Your task to perform on an android device: View the shopping cart on newegg. Add "razer nari" to the cart on newegg, then select checkout. Image 0: 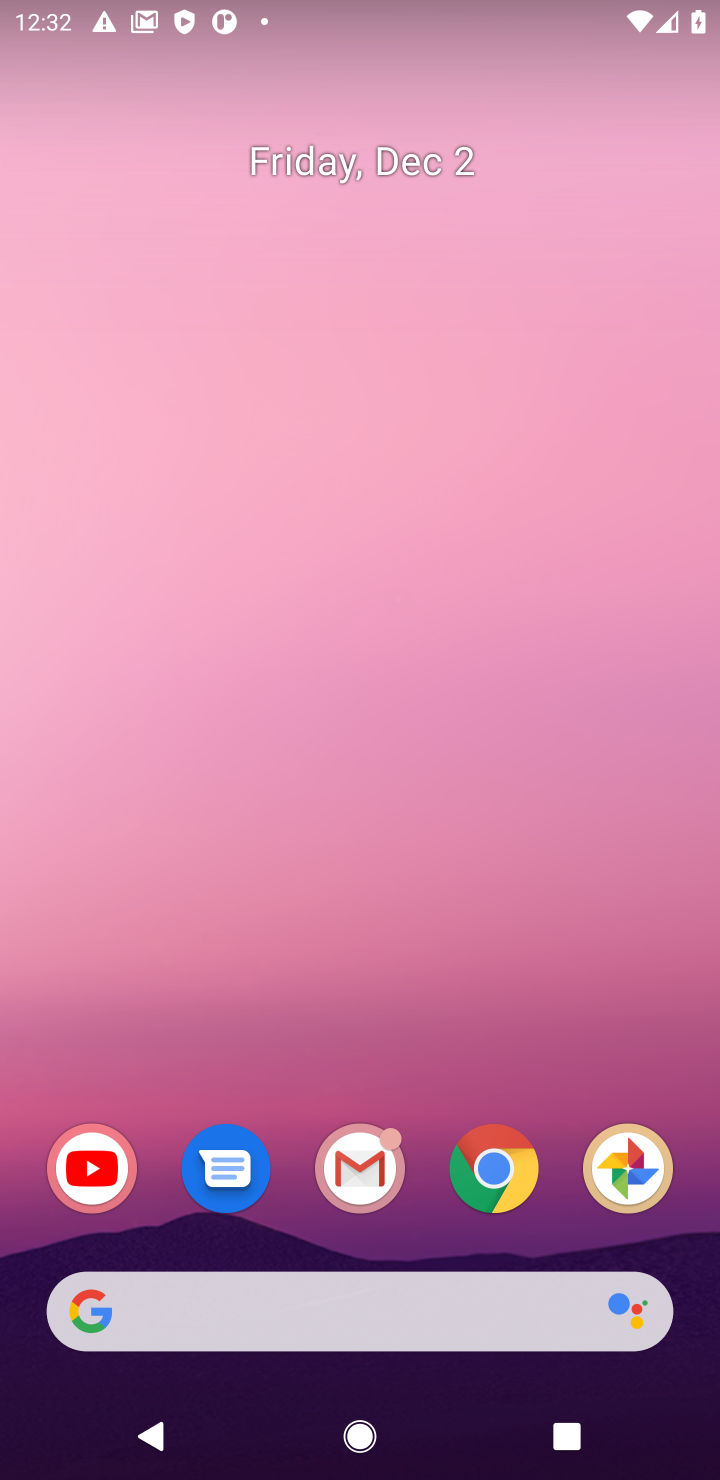
Step 0: click (471, 1179)
Your task to perform on an android device: View the shopping cart on newegg. Add "razer nari" to the cart on newegg, then select checkout. Image 1: 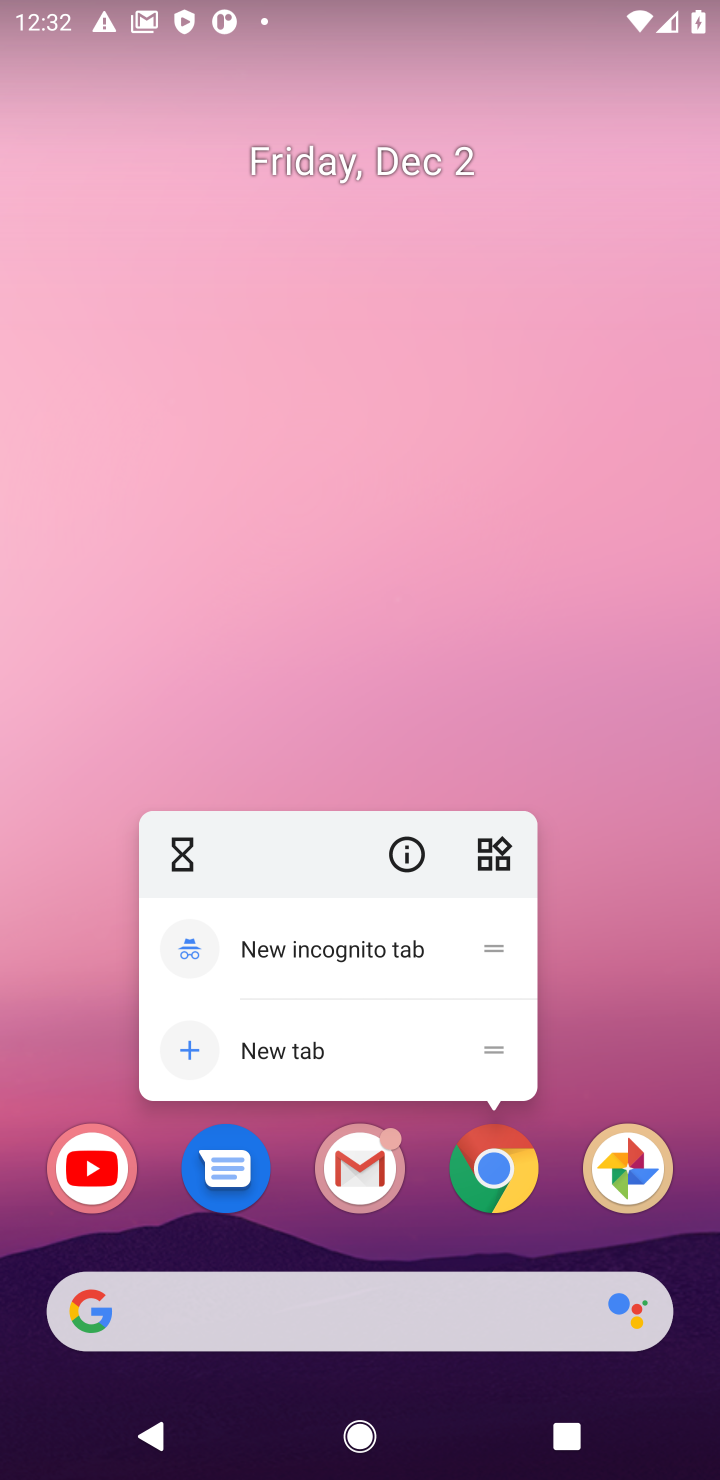
Step 1: click (498, 1196)
Your task to perform on an android device: View the shopping cart on newegg. Add "razer nari" to the cart on newegg, then select checkout. Image 2: 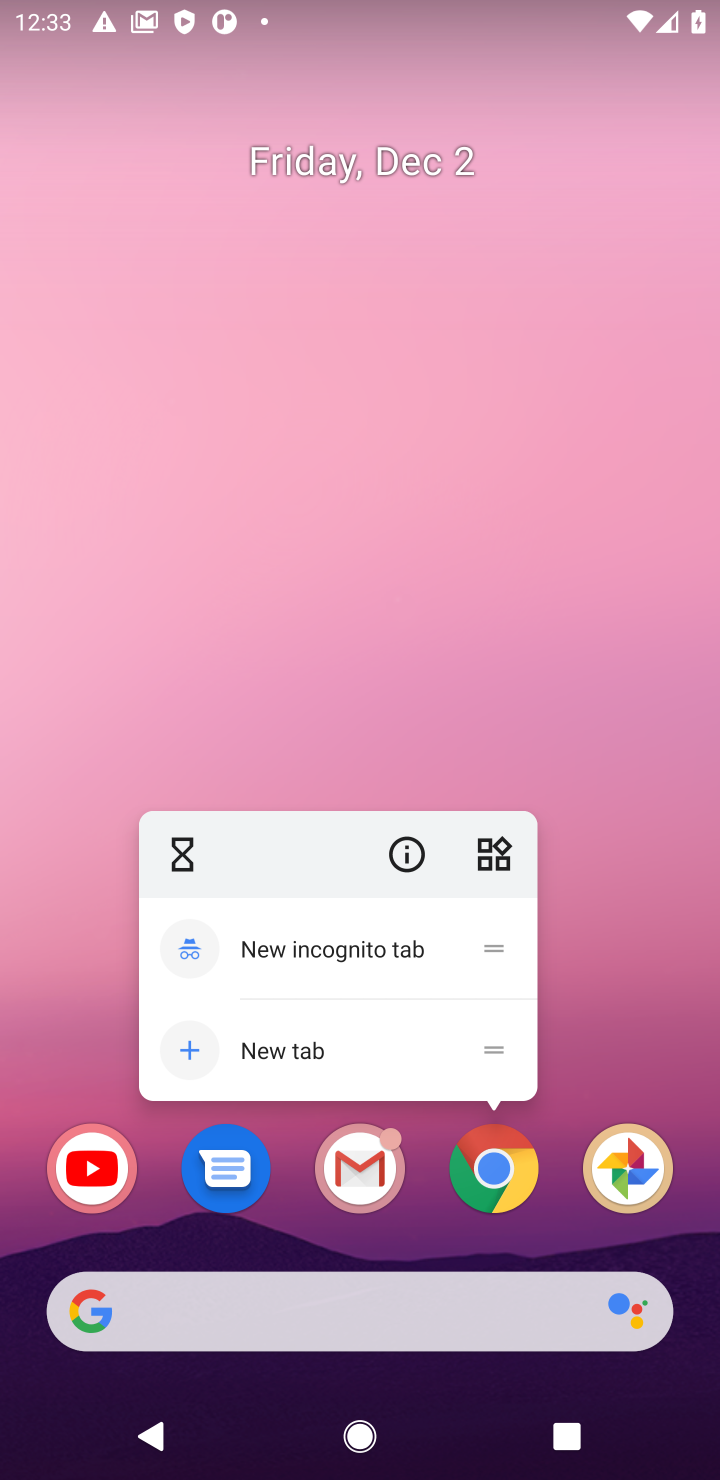
Step 2: click (487, 1166)
Your task to perform on an android device: View the shopping cart on newegg. Add "razer nari" to the cart on newegg, then select checkout. Image 3: 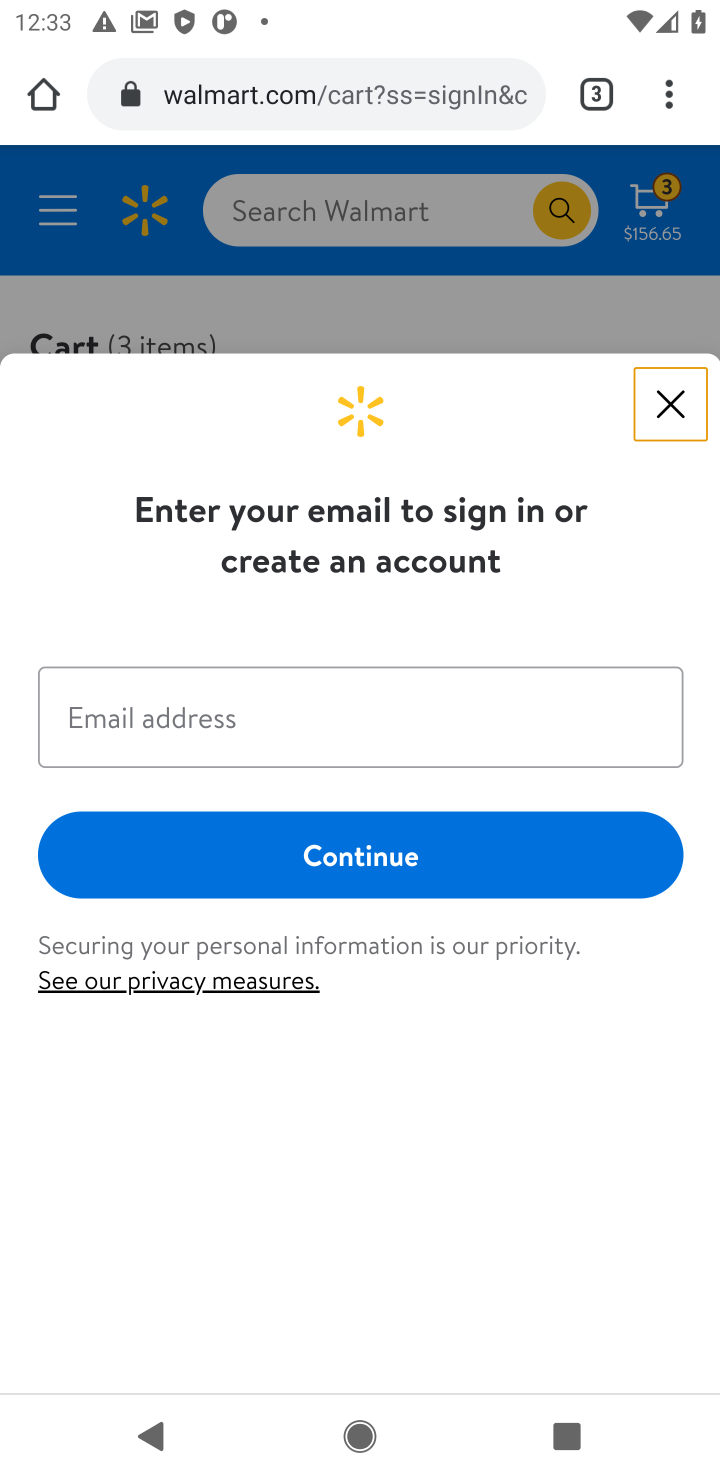
Step 3: click (275, 94)
Your task to perform on an android device: View the shopping cart on newegg. Add "razer nari" to the cart on newegg, then select checkout. Image 4: 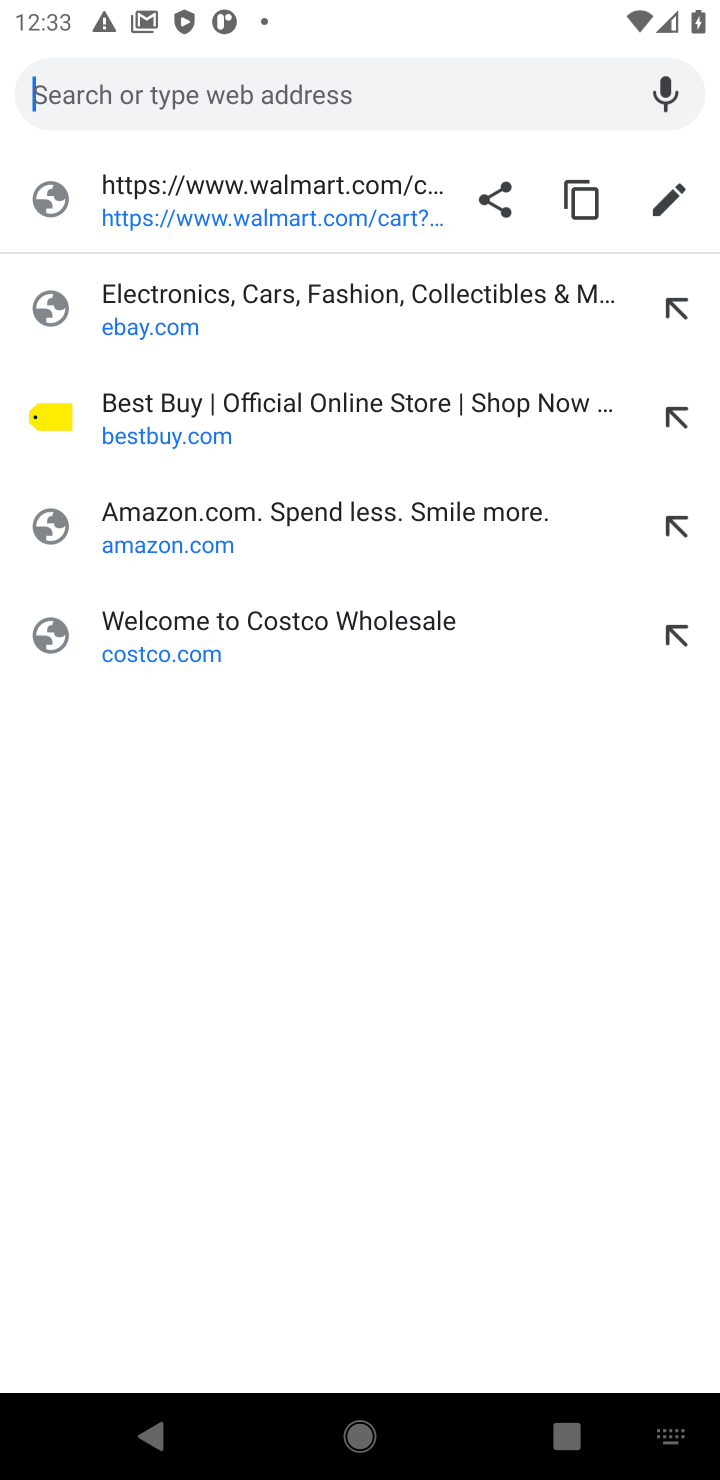
Step 4: type "newegg.com"
Your task to perform on an android device: View the shopping cart on newegg. Add "razer nari" to the cart on newegg, then select checkout. Image 5: 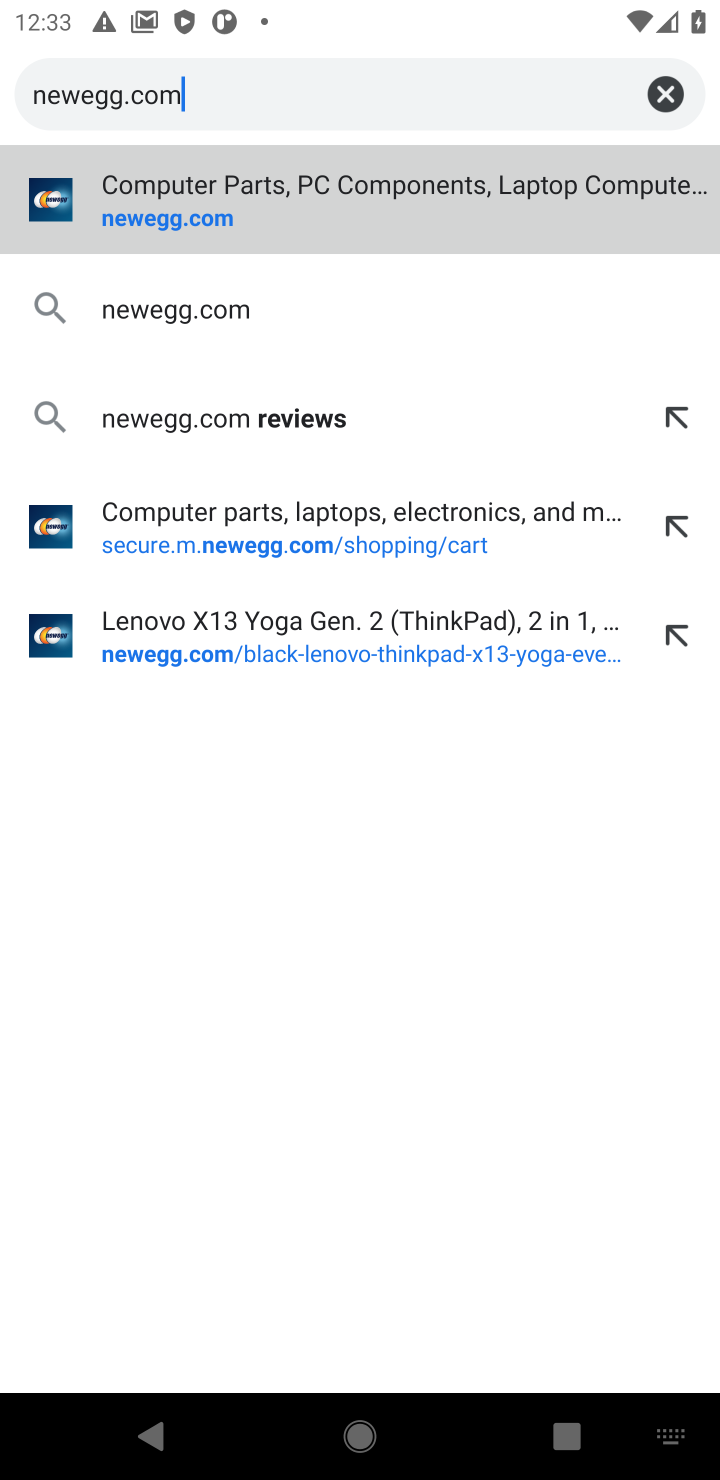
Step 5: click (143, 212)
Your task to perform on an android device: View the shopping cart on newegg. Add "razer nari" to the cart on newegg, then select checkout. Image 6: 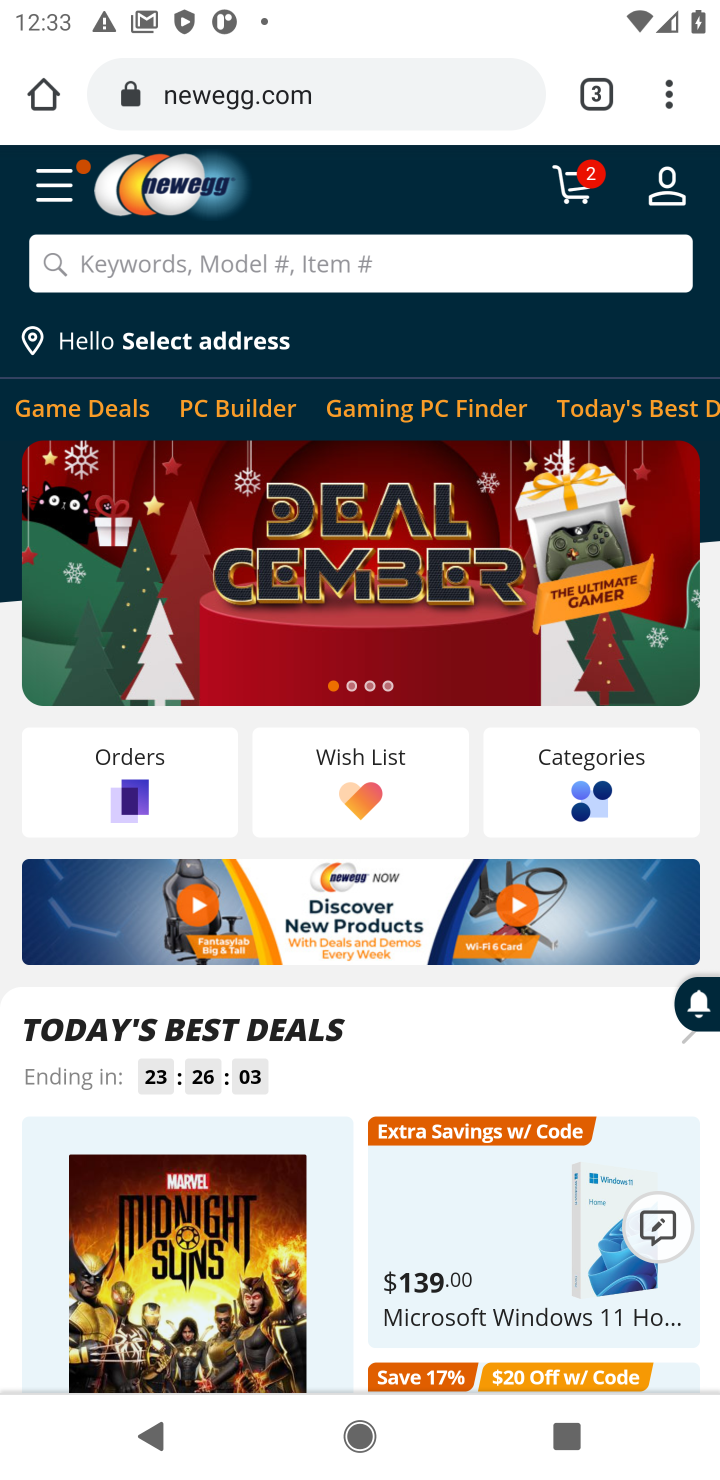
Step 6: click (573, 162)
Your task to perform on an android device: View the shopping cart on newegg. Add "razer nari" to the cart on newegg, then select checkout. Image 7: 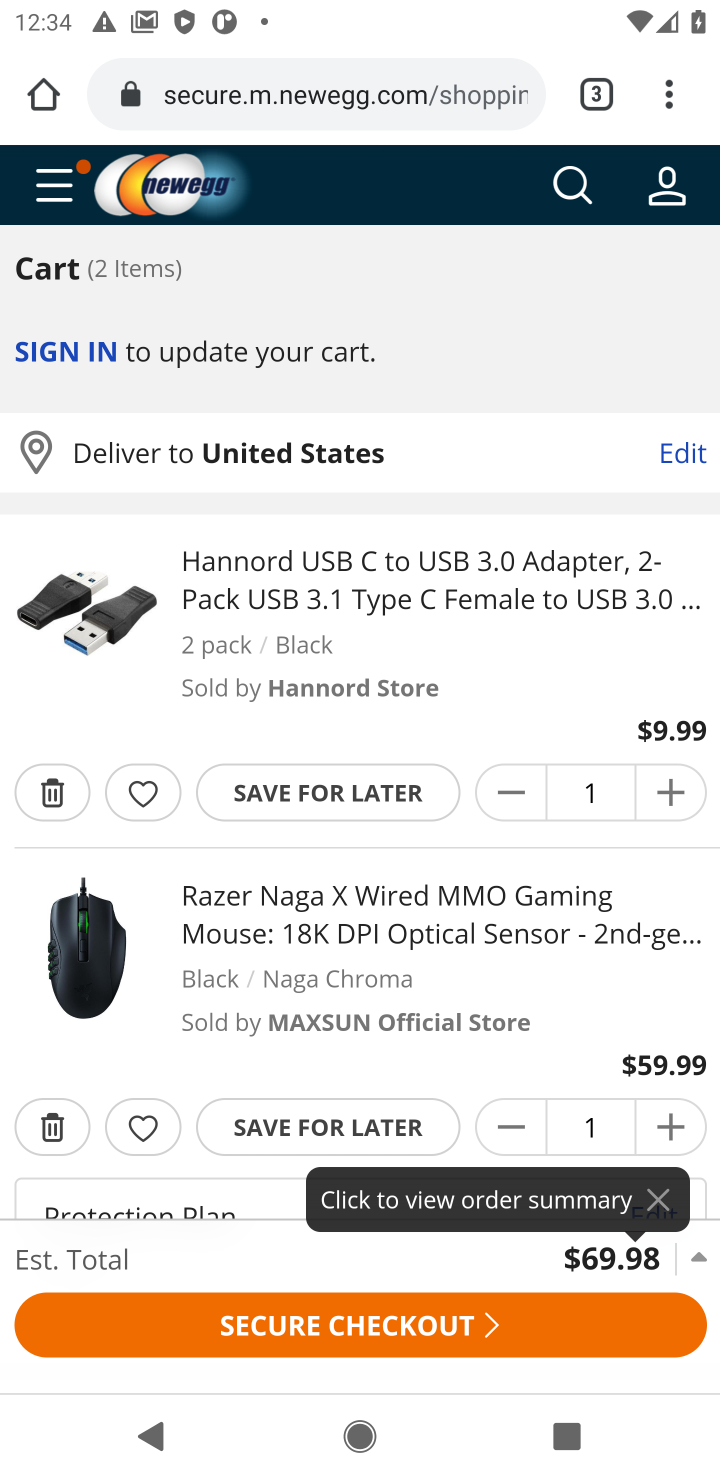
Step 7: click (566, 179)
Your task to perform on an android device: View the shopping cart on newegg. Add "razer nari" to the cart on newegg, then select checkout. Image 8: 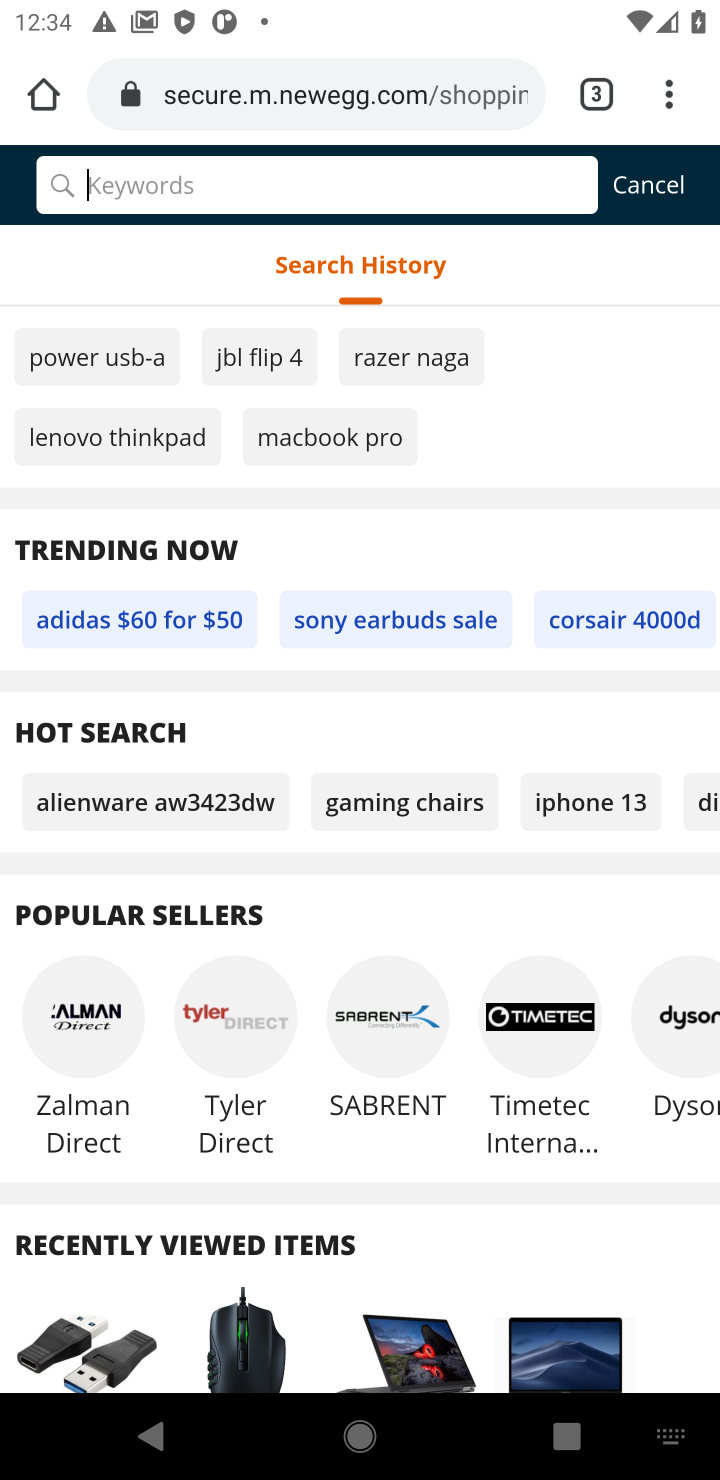
Step 8: type "razer nari"
Your task to perform on an android device: View the shopping cart on newegg. Add "razer nari" to the cart on newegg, then select checkout. Image 9: 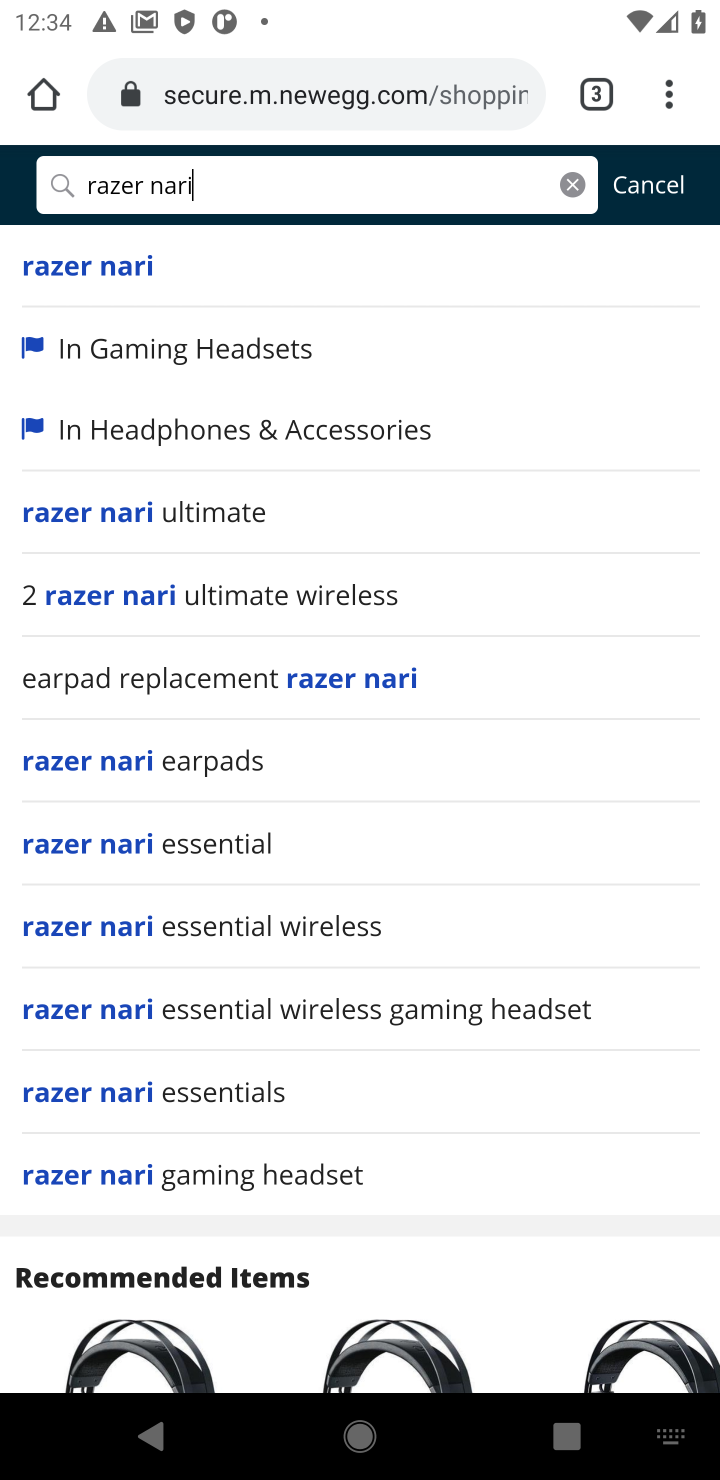
Step 9: click (106, 267)
Your task to perform on an android device: View the shopping cart on newegg. Add "razer nari" to the cart on newegg, then select checkout. Image 10: 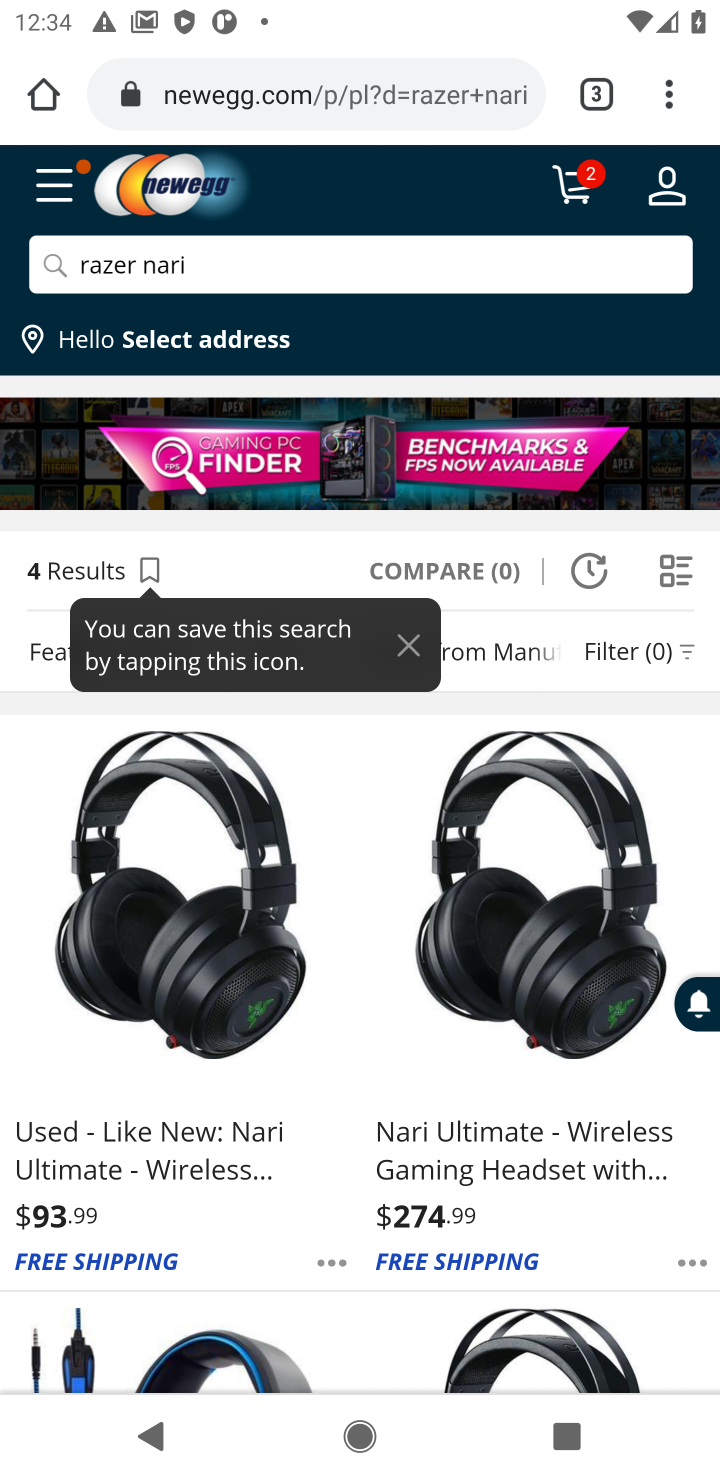
Step 10: drag from (361, 970) to (361, 736)
Your task to perform on an android device: View the shopping cart on newegg. Add "razer nari" to the cart on newegg, then select checkout. Image 11: 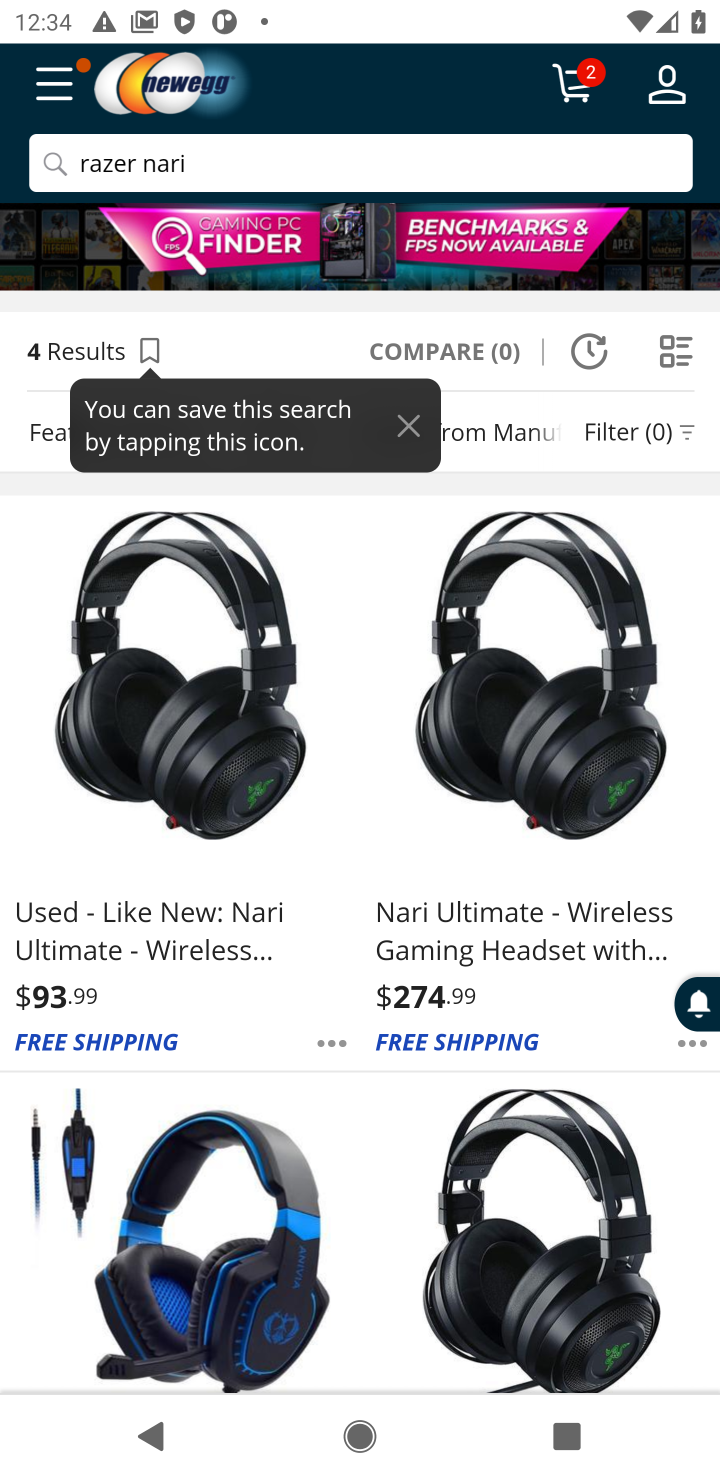
Step 11: drag from (312, 900) to (295, 714)
Your task to perform on an android device: View the shopping cart on newegg. Add "razer nari" to the cart on newegg, then select checkout. Image 12: 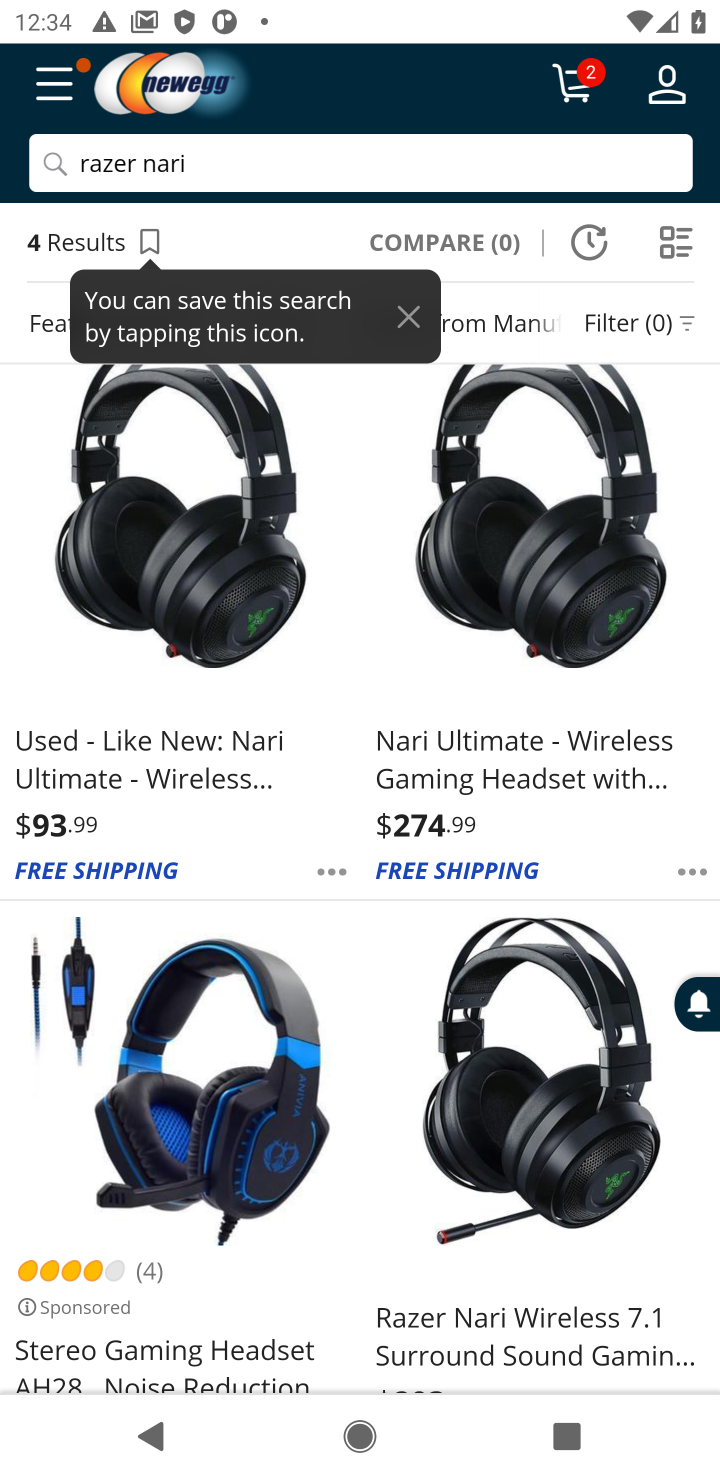
Step 12: drag from (311, 949) to (295, 684)
Your task to perform on an android device: View the shopping cart on newegg. Add "razer nari" to the cart on newegg, then select checkout. Image 13: 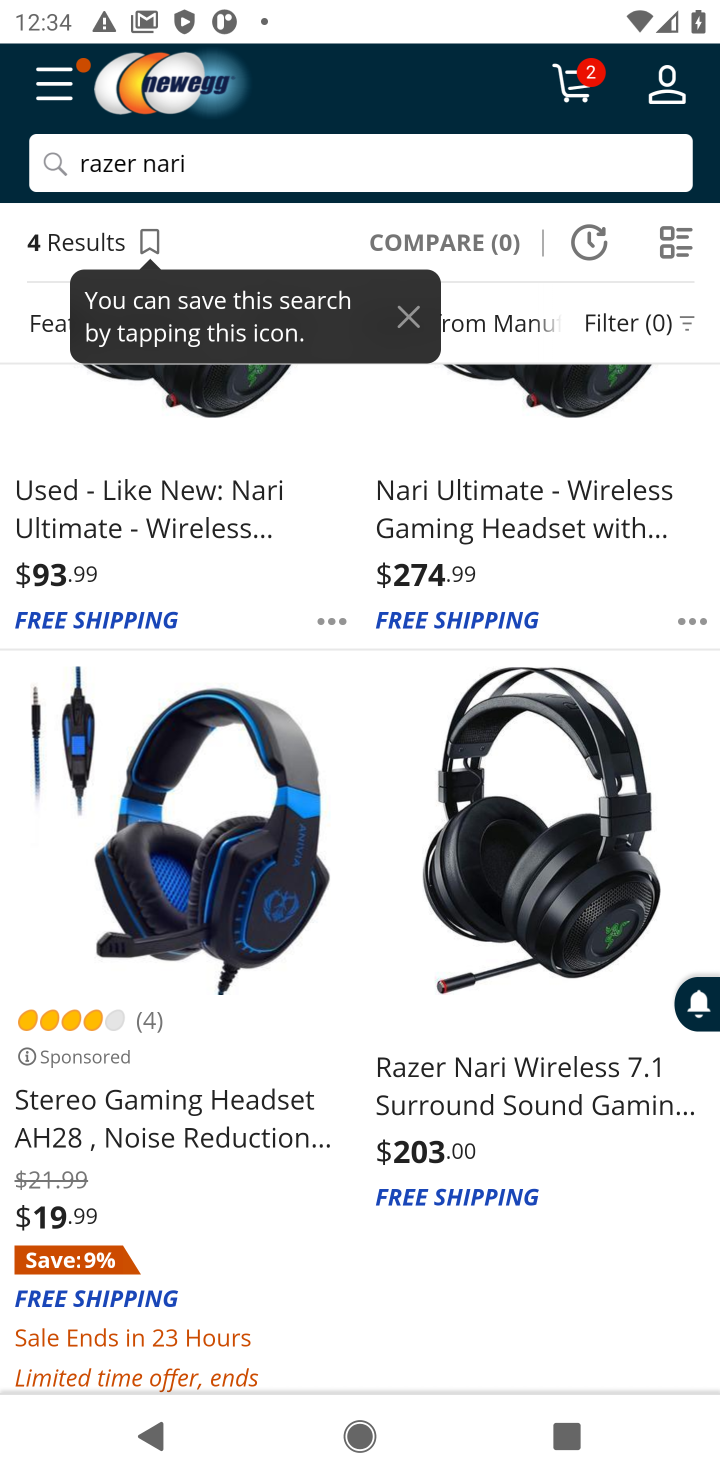
Step 13: click (487, 877)
Your task to perform on an android device: View the shopping cart on newegg. Add "razer nari" to the cart on newegg, then select checkout. Image 14: 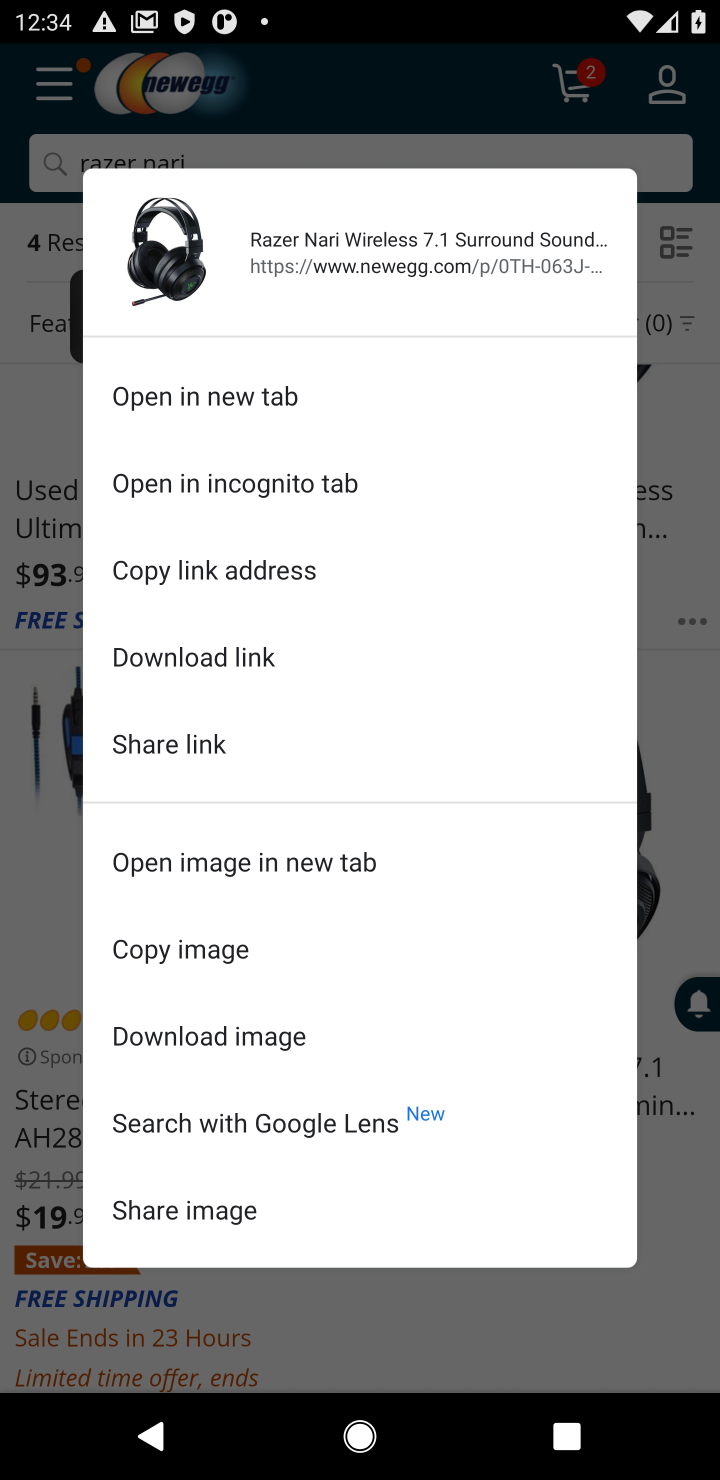
Step 14: click (672, 873)
Your task to perform on an android device: View the shopping cart on newegg. Add "razer nari" to the cart on newegg, then select checkout. Image 15: 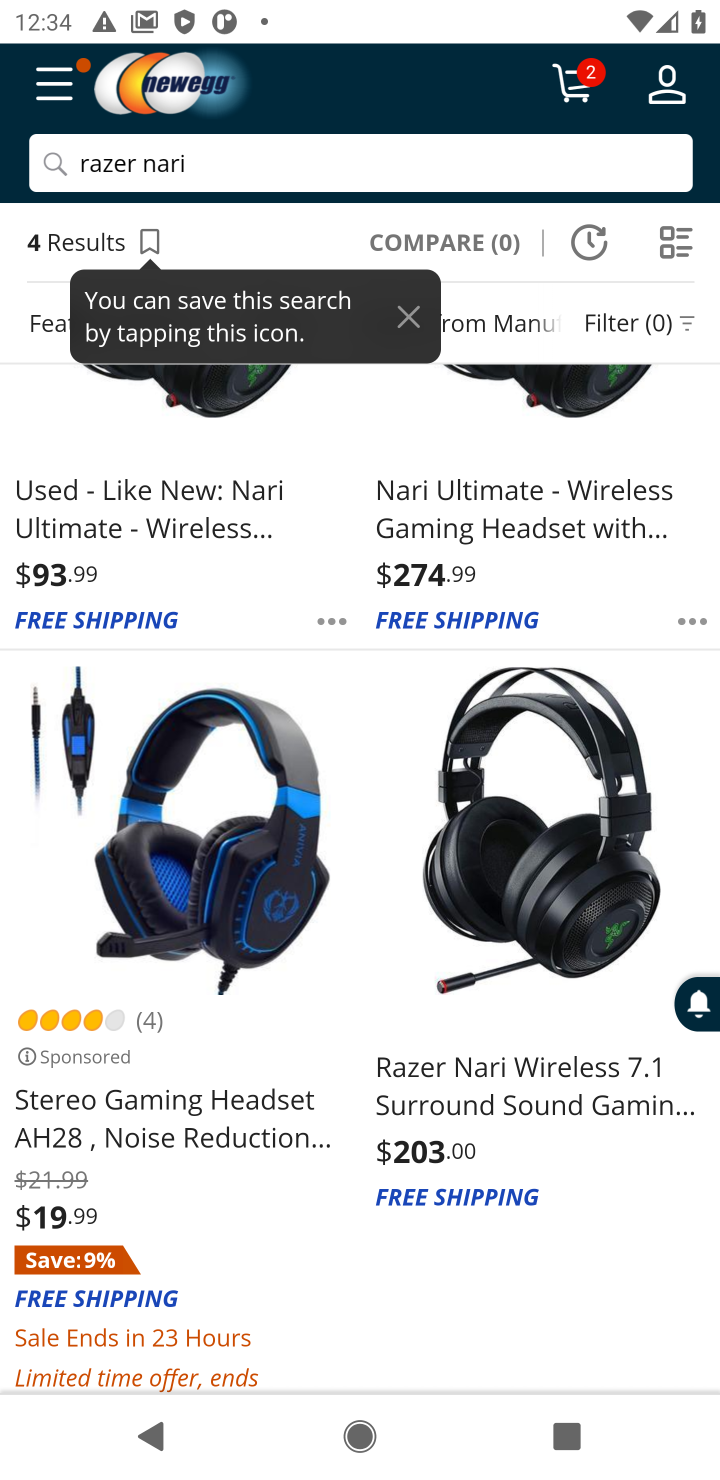
Step 15: click (524, 854)
Your task to perform on an android device: View the shopping cart on newegg. Add "razer nari" to the cart on newegg, then select checkout. Image 16: 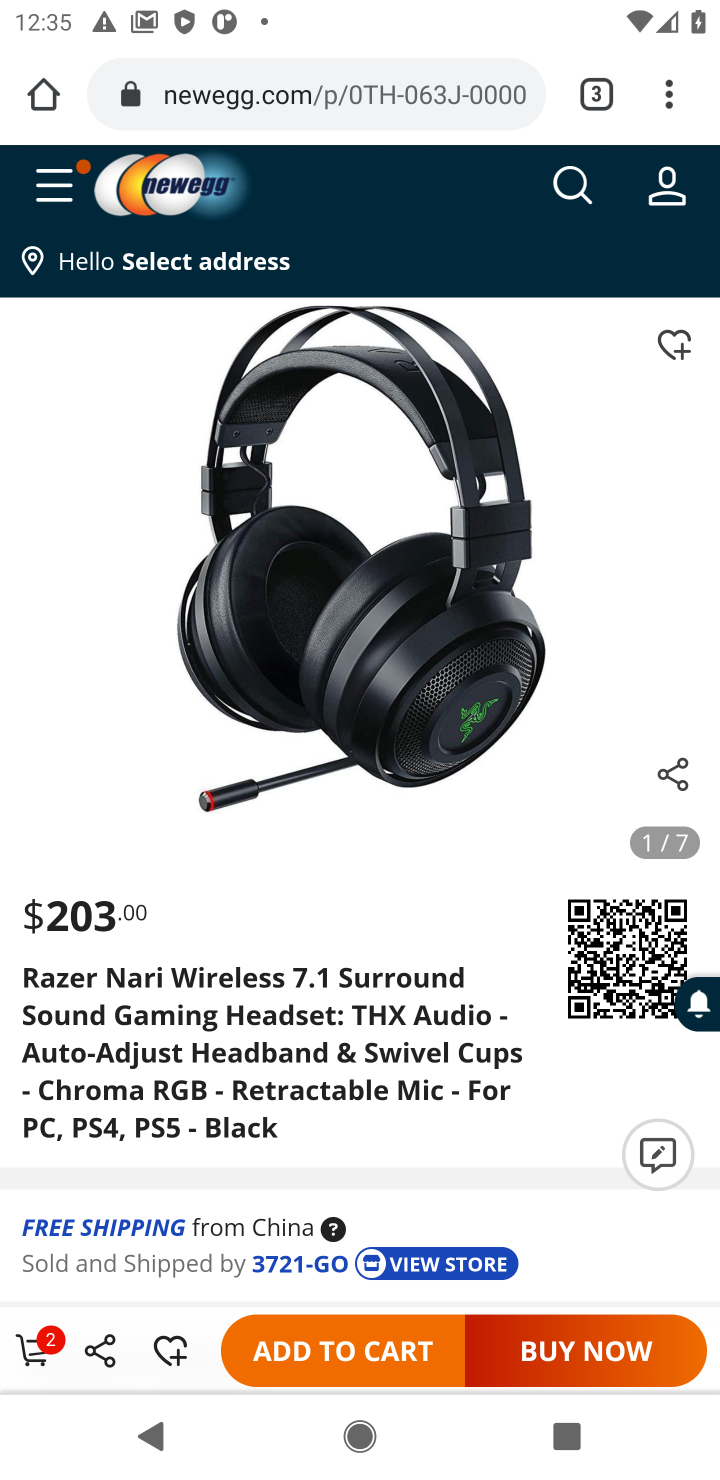
Step 16: click (340, 1355)
Your task to perform on an android device: View the shopping cart on newegg. Add "razer nari" to the cart on newegg, then select checkout. Image 17: 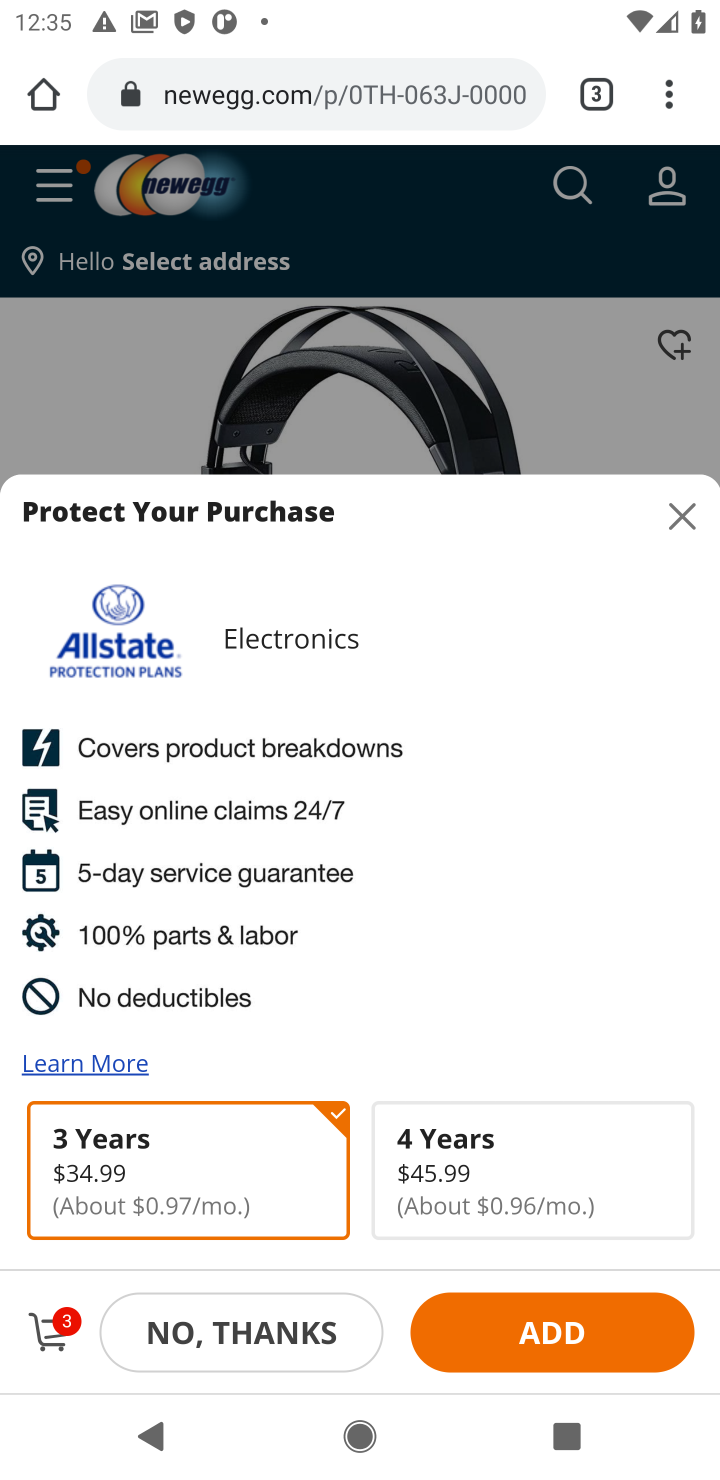
Step 17: click (54, 1339)
Your task to perform on an android device: View the shopping cart on newegg. Add "razer nari" to the cart on newegg, then select checkout. Image 18: 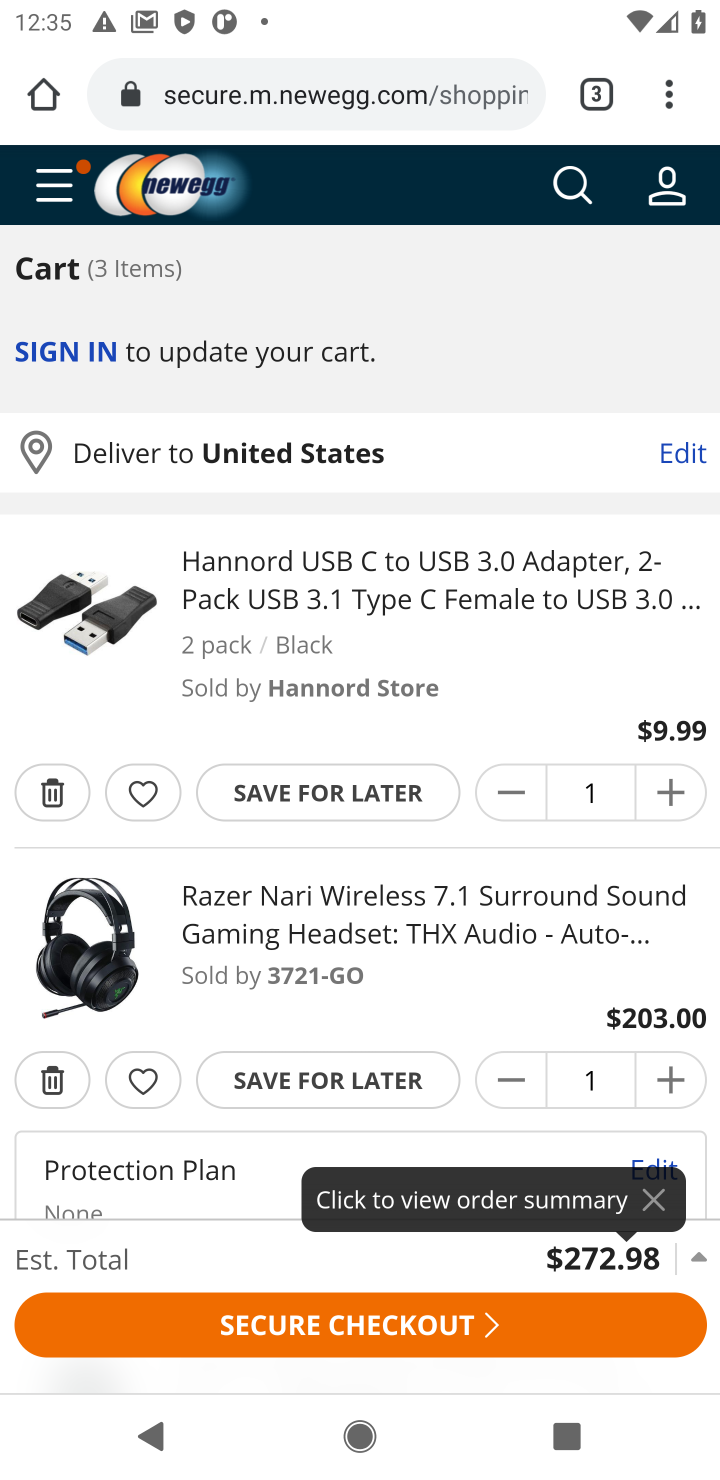
Step 18: click (190, 1313)
Your task to perform on an android device: View the shopping cart on newegg. Add "razer nari" to the cart on newegg, then select checkout. Image 19: 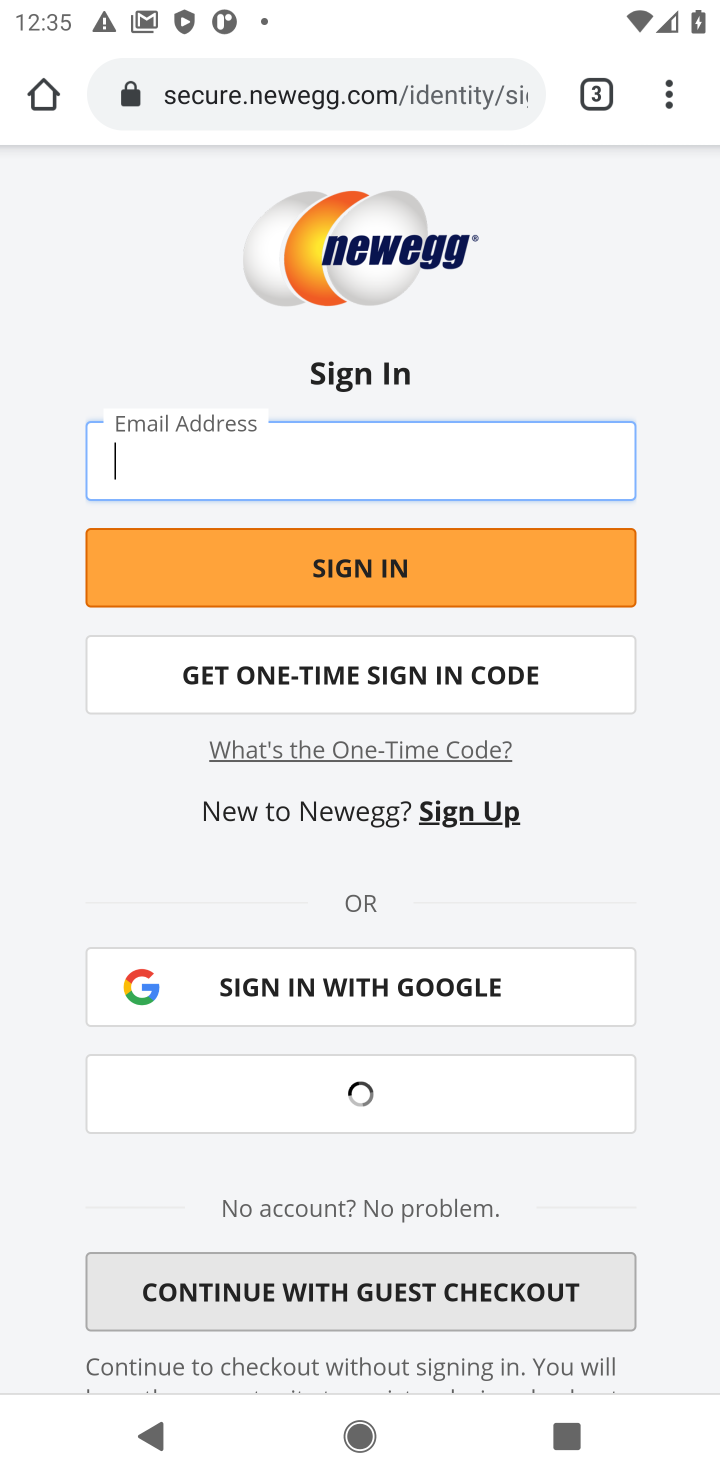
Step 19: task complete